Your task to perform on an android device: open chrome and create a bookmark for the current page Image 0: 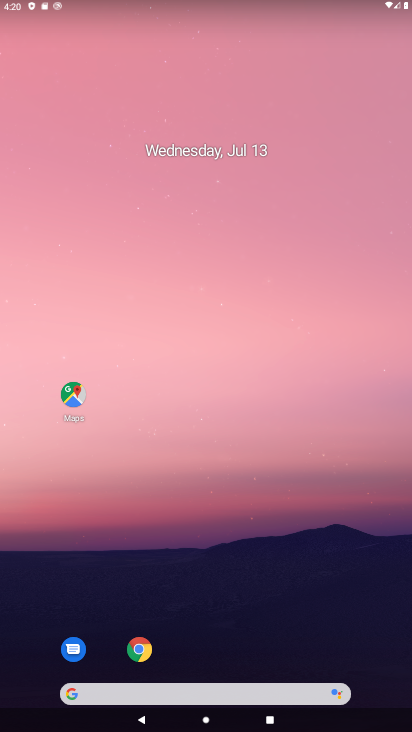
Step 0: drag from (319, 615) to (366, 40)
Your task to perform on an android device: open chrome and create a bookmark for the current page Image 1: 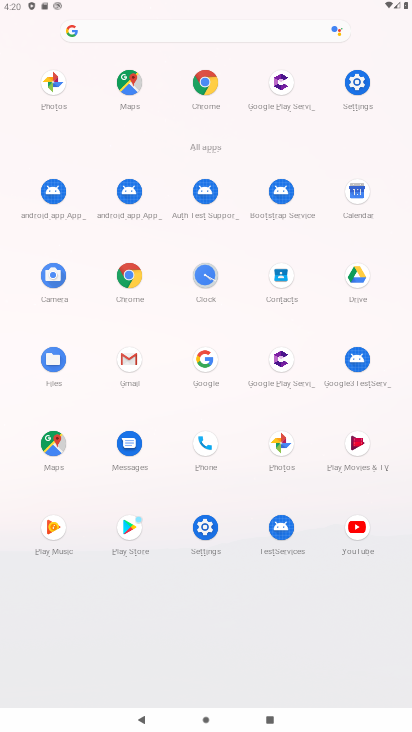
Step 1: click (196, 77)
Your task to perform on an android device: open chrome and create a bookmark for the current page Image 2: 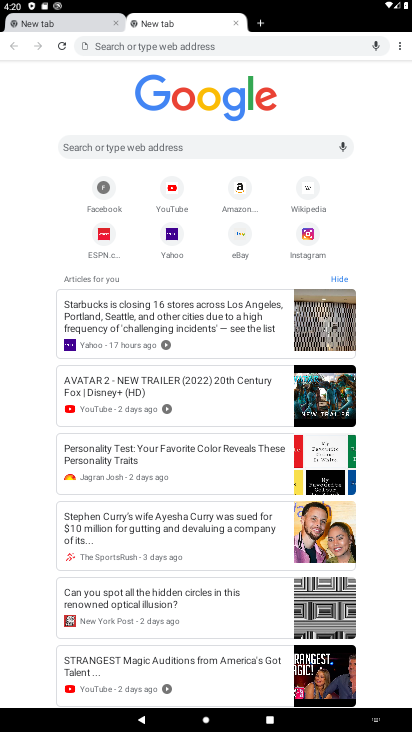
Step 2: drag from (395, 43) to (331, 100)
Your task to perform on an android device: open chrome and create a bookmark for the current page Image 3: 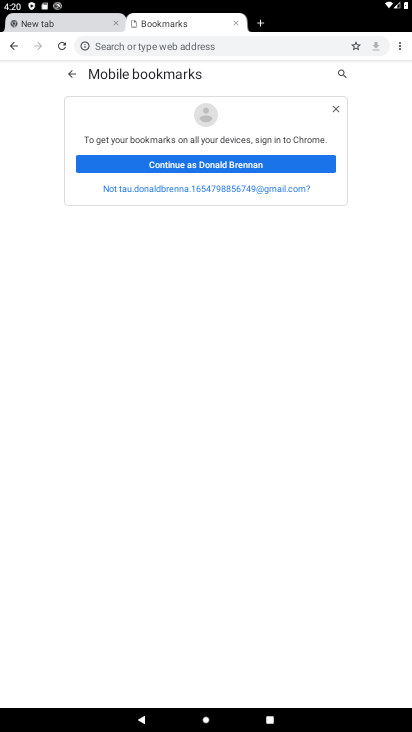
Step 3: click (202, 164)
Your task to perform on an android device: open chrome and create a bookmark for the current page Image 4: 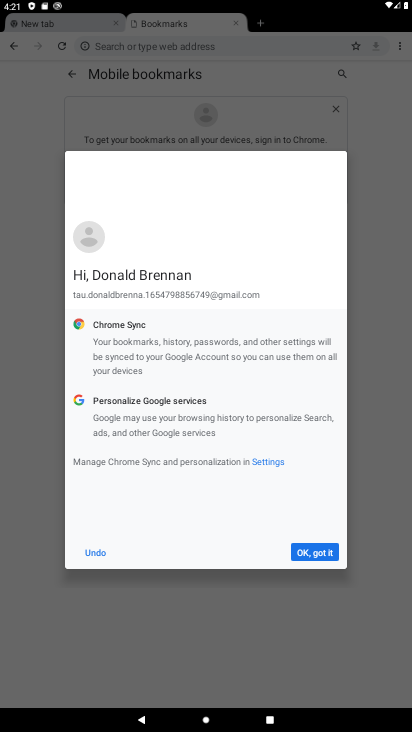
Step 4: click (322, 554)
Your task to perform on an android device: open chrome and create a bookmark for the current page Image 5: 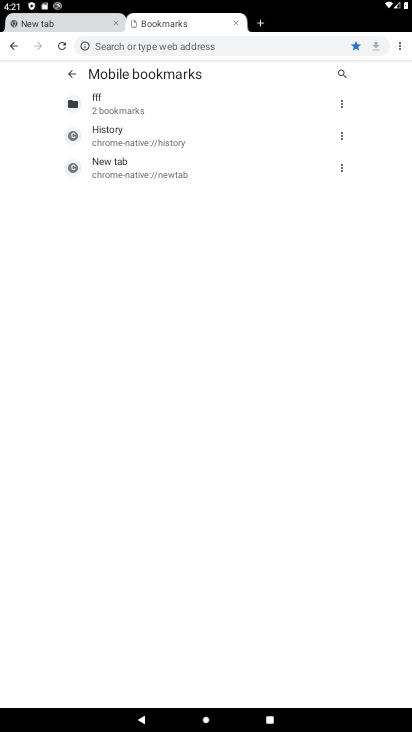
Step 5: task complete